Your task to perform on an android device: Open eBay Image 0: 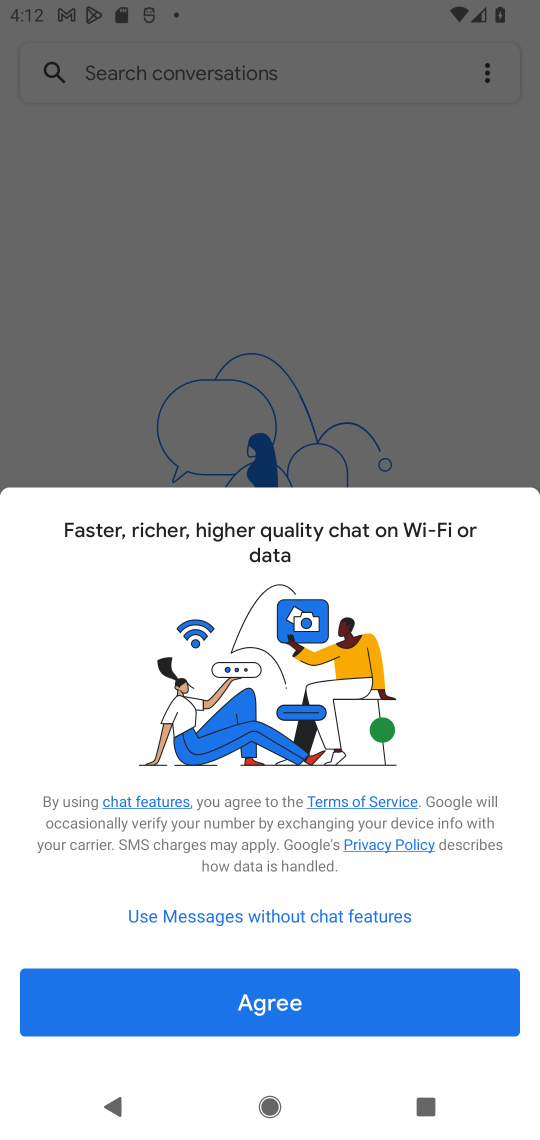
Step 0: press home button
Your task to perform on an android device: Open eBay Image 1: 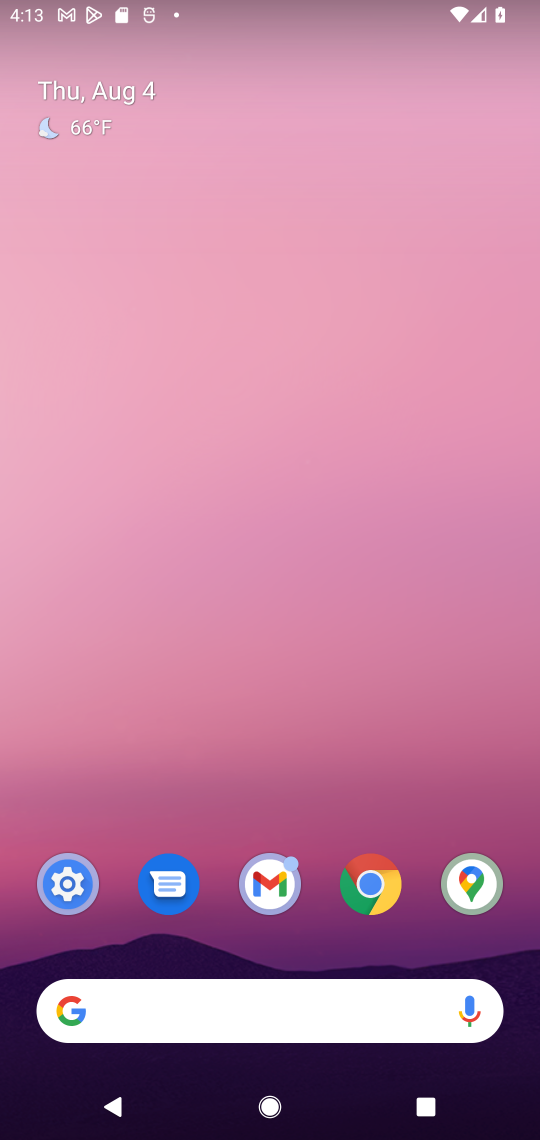
Step 1: click (394, 1003)
Your task to perform on an android device: Open eBay Image 2: 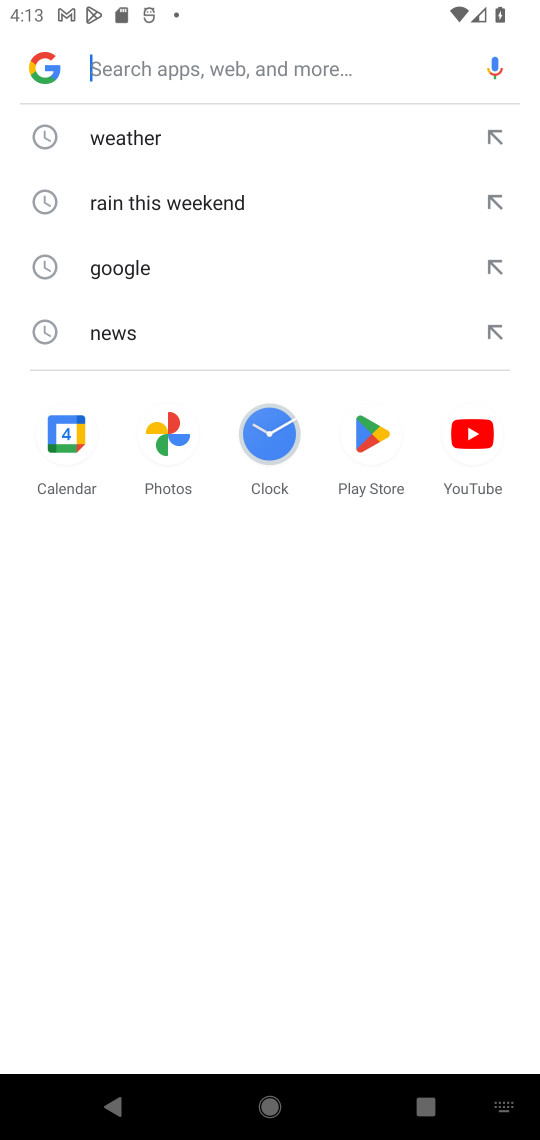
Step 2: click (317, 997)
Your task to perform on an android device: Open eBay Image 3: 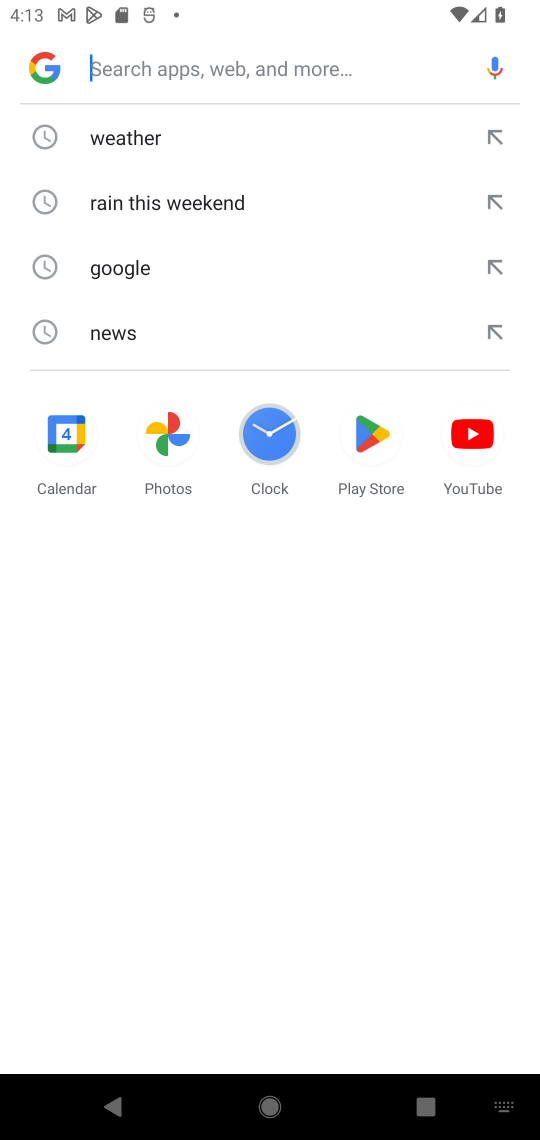
Step 3: task complete